Your task to perform on an android device: toggle airplane mode Image 0: 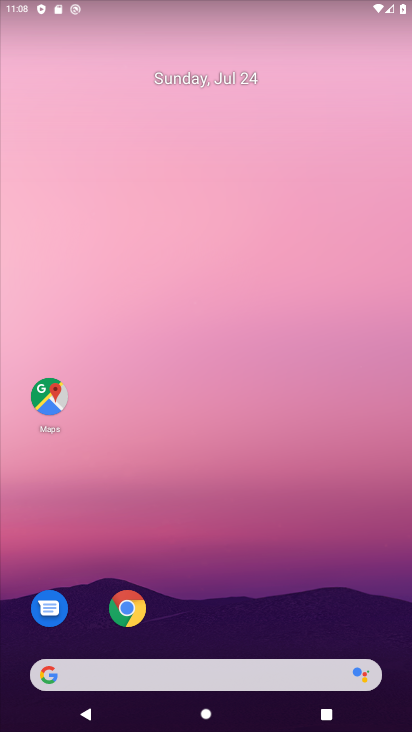
Step 0: drag from (239, 644) to (269, 0)
Your task to perform on an android device: toggle airplane mode Image 1: 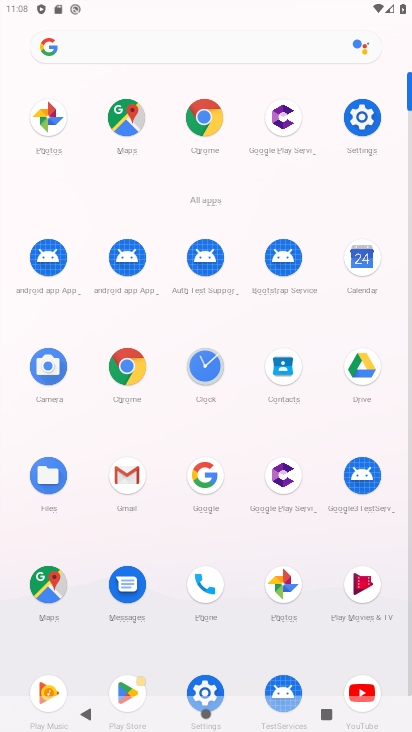
Step 1: click (364, 123)
Your task to perform on an android device: toggle airplane mode Image 2: 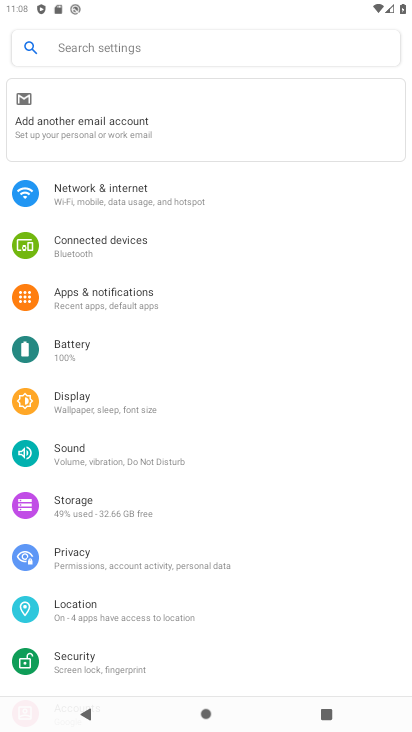
Step 2: click (117, 197)
Your task to perform on an android device: toggle airplane mode Image 3: 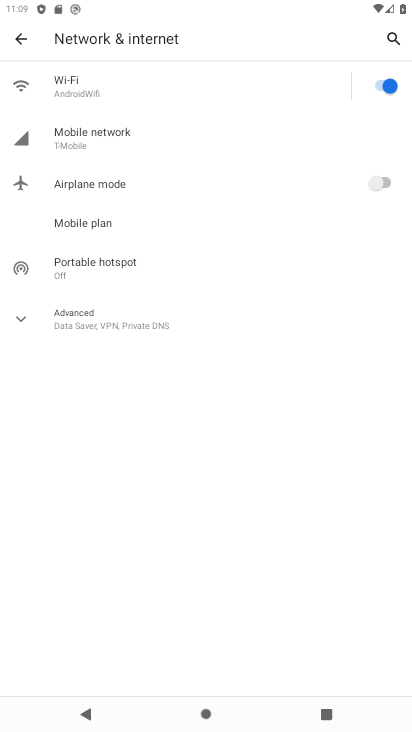
Step 3: click (379, 184)
Your task to perform on an android device: toggle airplane mode Image 4: 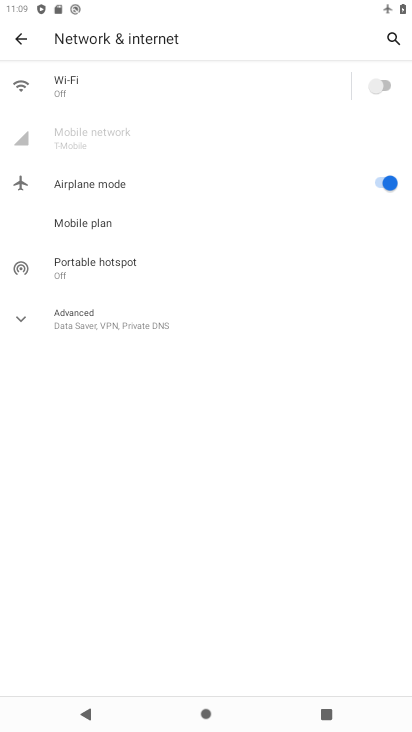
Step 4: task complete